Your task to perform on an android device: check google app version Image 0: 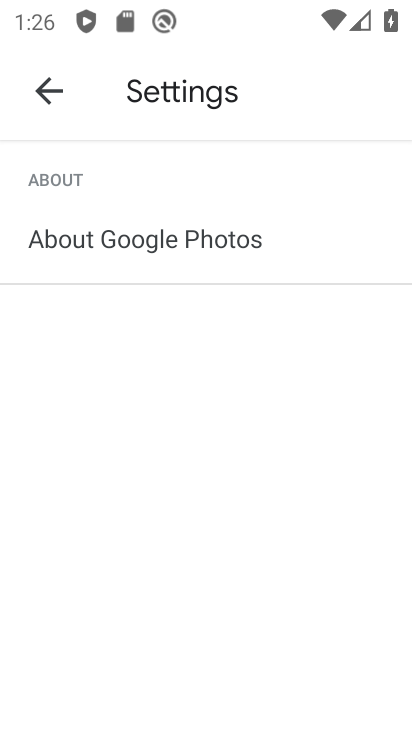
Step 0: press home button
Your task to perform on an android device: check google app version Image 1: 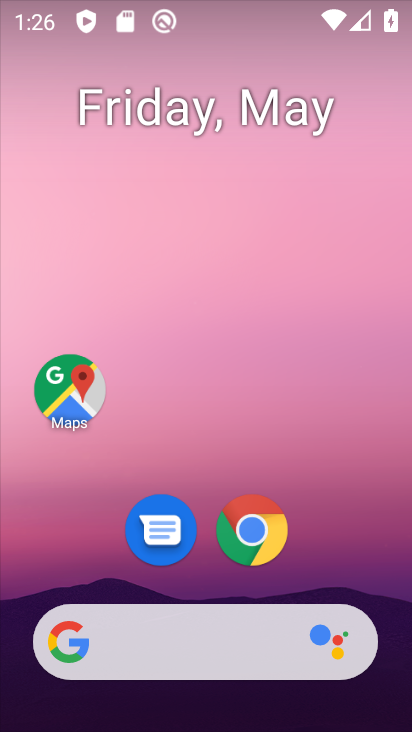
Step 1: drag from (363, 573) to (222, 33)
Your task to perform on an android device: check google app version Image 2: 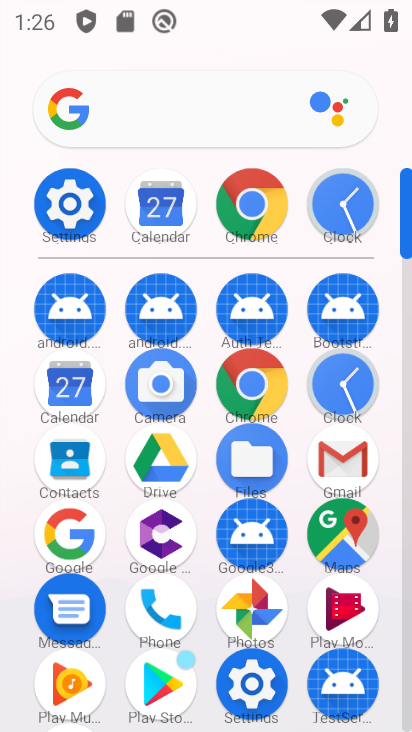
Step 2: click (59, 533)
Your task to perform on an android device: check google app version Image 3: 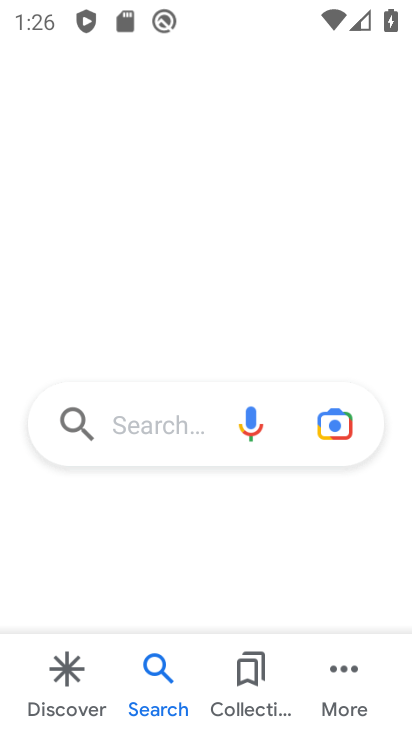
Step 3: click (341, 680)
Your task to perform on an android device: check google app version Image 4: 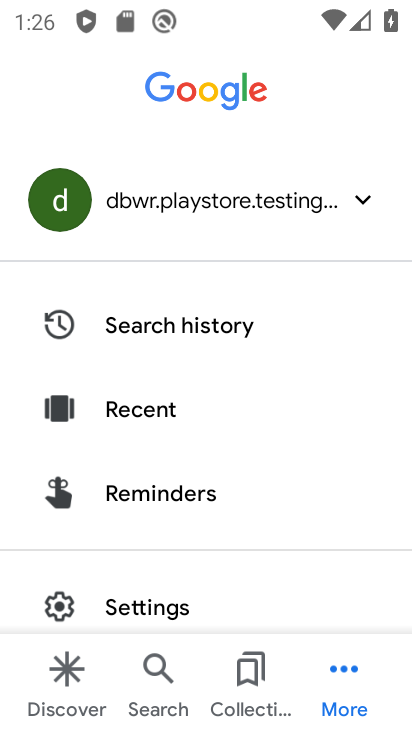
Step 4: click (177, 598)
Your task to perform on an android device: check google app version Image 5: 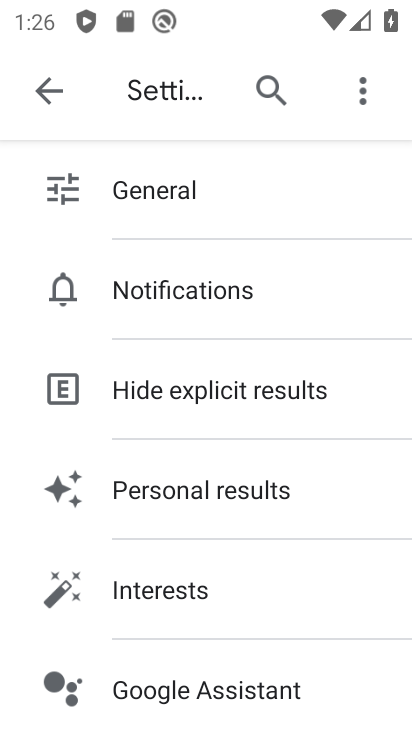
Step 5: drag from (196, 676) to (177, 134)
Your task to perform on an android device: check google app version Image 6: 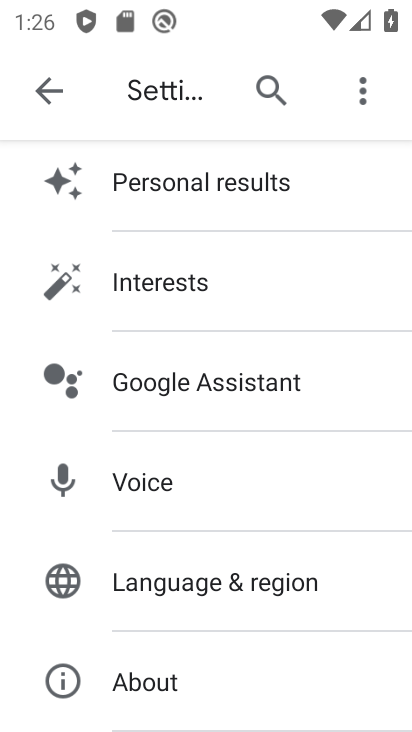
Step 6: click (217, 689)
Your task to perform on an android device: check google app version Image 7: 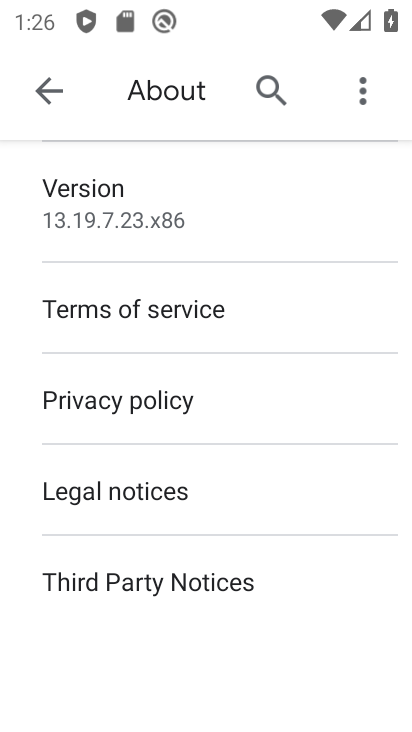
Step 7: click (81, 226)
Your task to perform on an android device: check google app version Image 8: 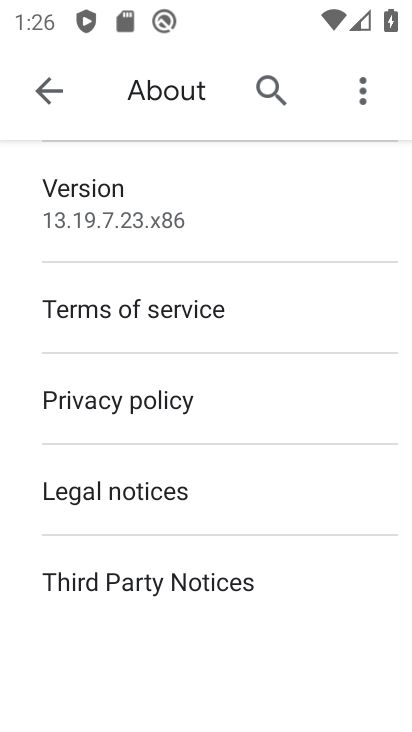
Step 8: task complete